Your task to perform on an android device: toggle show notifications on the lock screen Image 0: 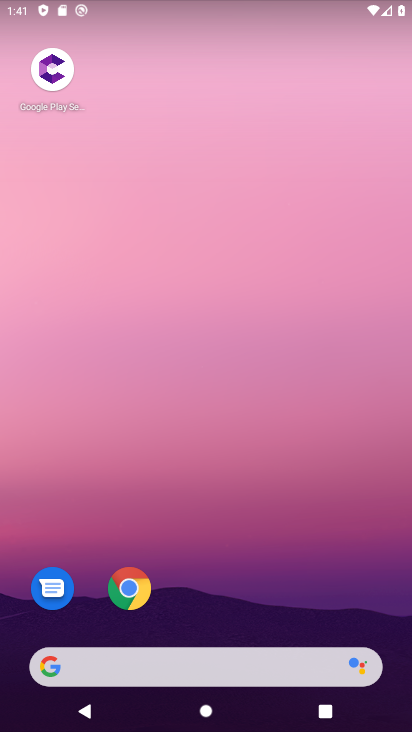
Step 0: drag from (177, 569) to (224, 98)
Your task to perform on an android device: toggle show notifications on the lock screen Image 1: 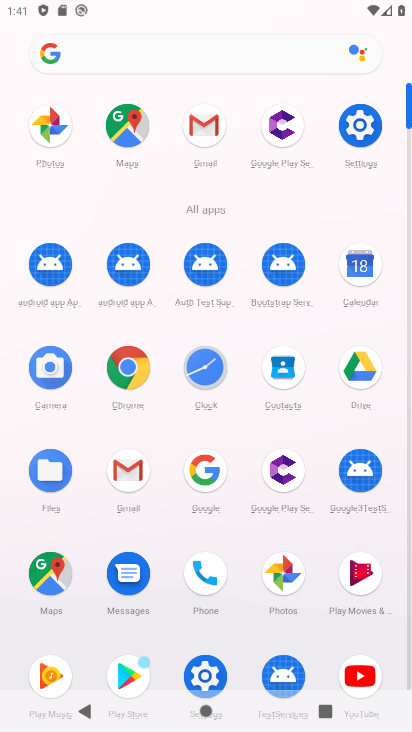
Step 1: click (197, 670)
Your task to perform on an android device: toggle show notifications on the lock screen Image 2: 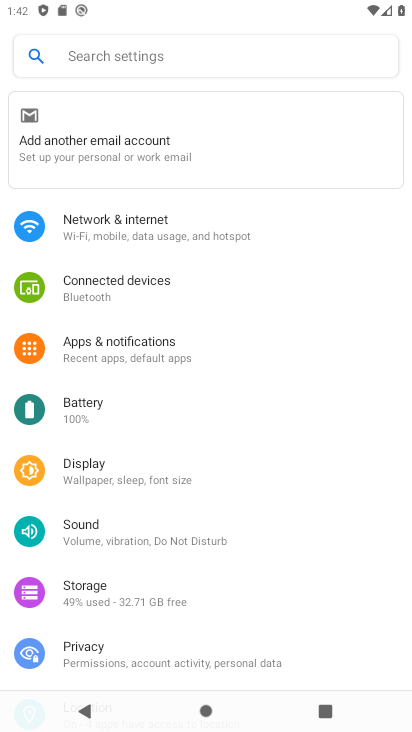
Step 2: click (186, 372)
Your task to perform on an android device: toggle show notifications on the lock screen Image 3: 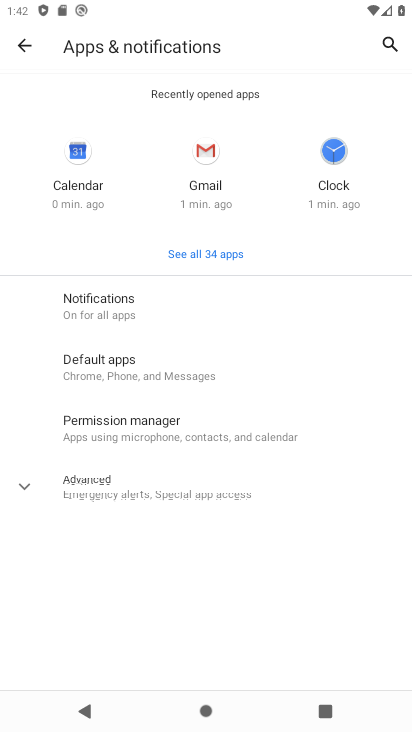
Step 3: click (177, 322)
Your task to perform on an android device: toggle show notifications on the lock screen Image 4: 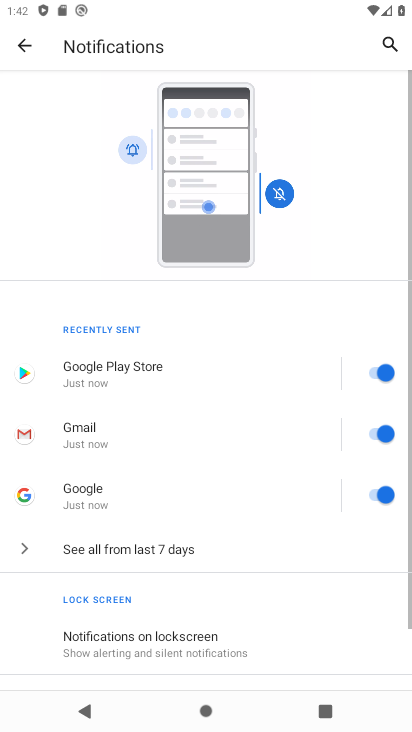
Step 4: drag from (156, 649) to (244, 427)
Your task to perform on an android device: toggle show notifications on the lock screen Image 5: 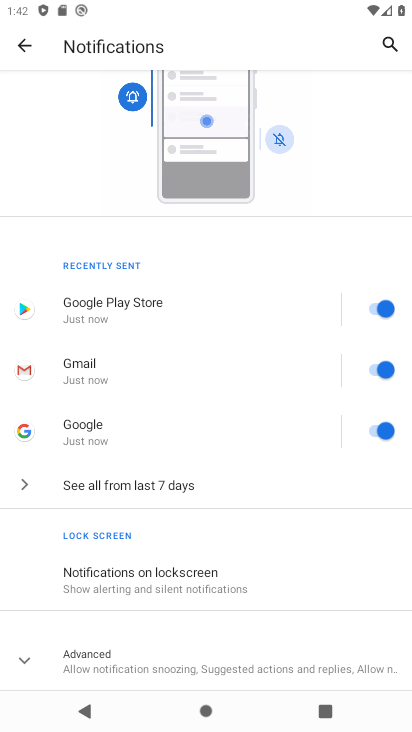
Step 5: click (195, 597)
Your task to perform on an android device: toggle show notifications on the lock screen Image 6: 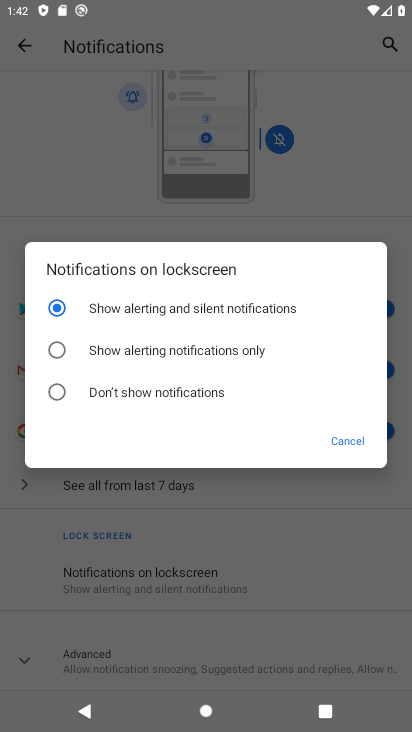
Step 6: click (166, 404)
Your task to perform on an android device: toggle show notifications on the lock screen Image 7: 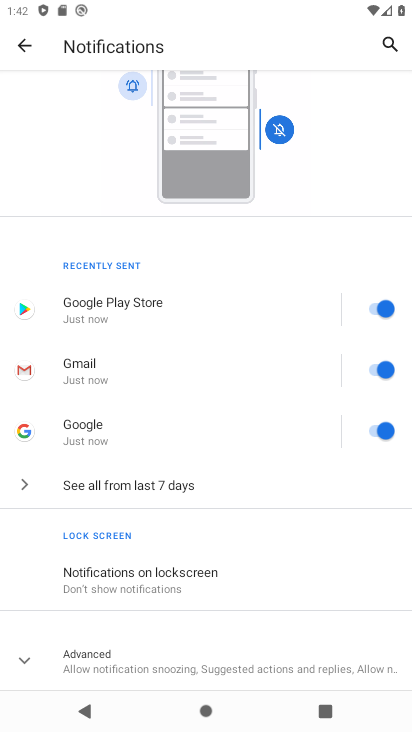
Step 7: task complete